Your task to perform on an android device: Is it going to rain tomorrow? Image 0: 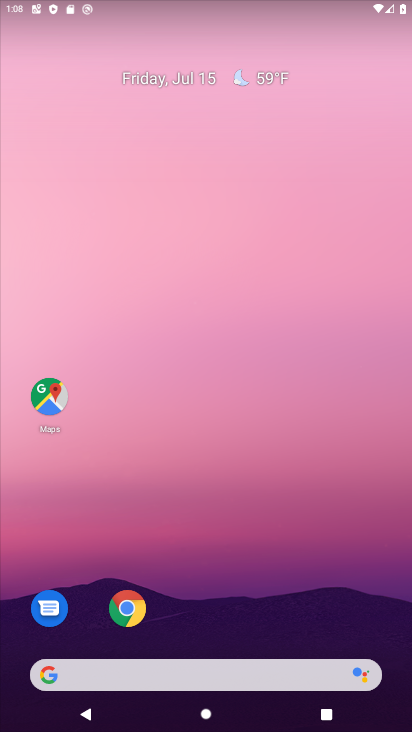
Step 0: drag from (176, 659) to (176, 351)
Your task to perform on an android device: Is it going to rain tomorrow? Image 1: 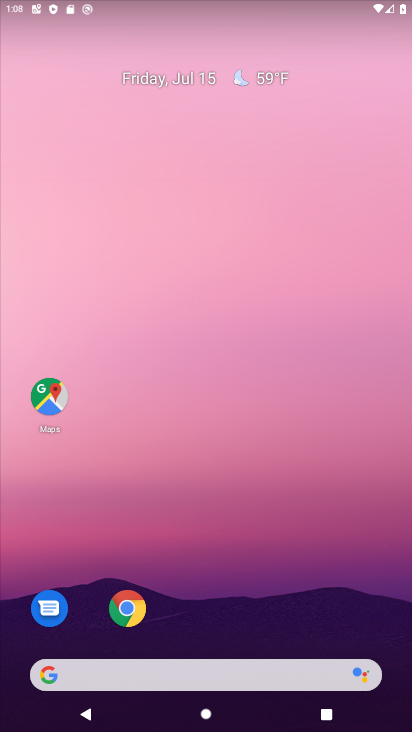
Step 1: drag from (212, 460) to (232, 207)
Your task to perform on an android device: Is it going to rain tomorrow? Image 2: 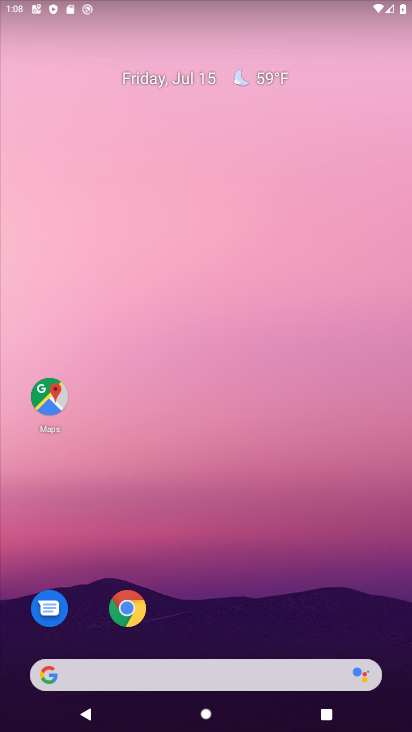
Step 2: drag from (171, 652) to (195, 241)
Your task to perform on an android device: Is it going to rain tomorrow? Image 3: 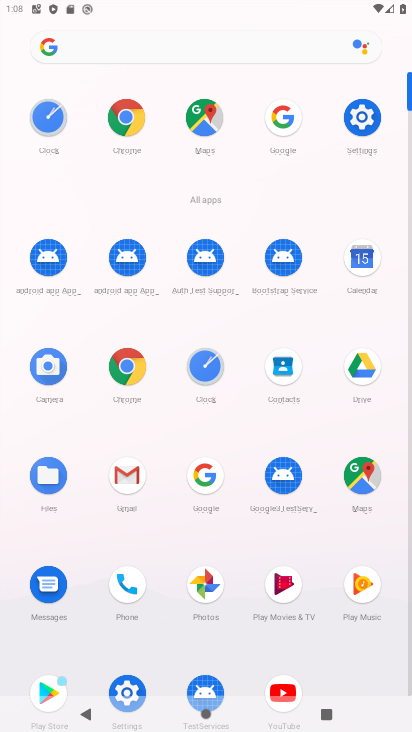
Step 3: click (200, 486)
Your task to perform on an android device: Is it going to rain tomorrow? Image 4: 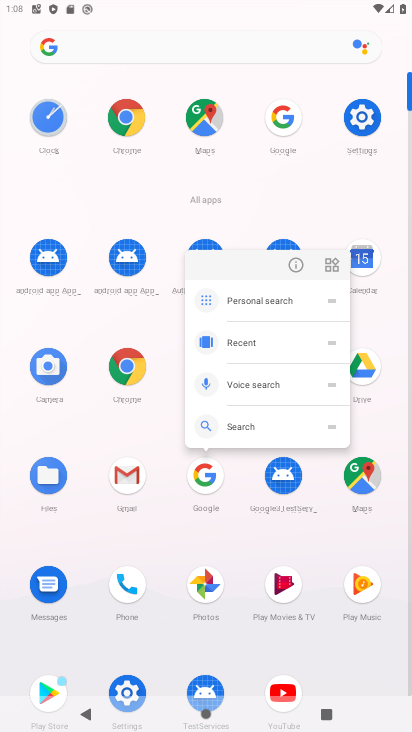
Step 4: click (202, 479)
Your task to perform on an android device: Is it going to rain tomorrow? Image 5: 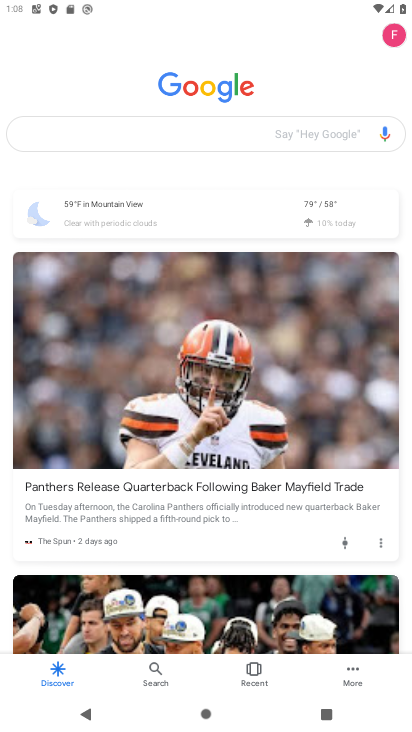
Step 5: click (157, 142)
Your task to perform on an android device: Is it going to rain tomorrow? Image 6: 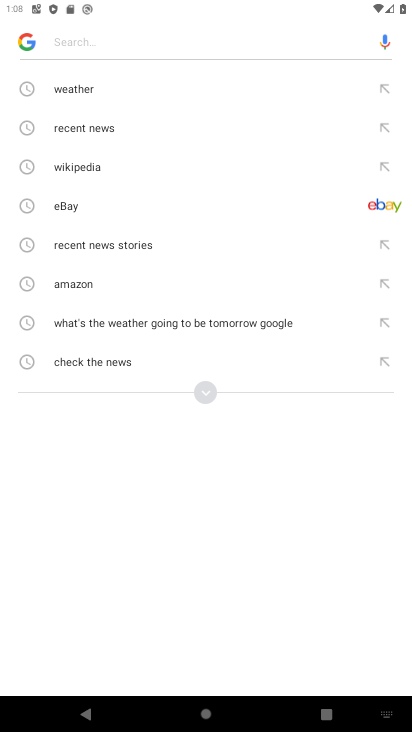
Step 6: click (213, 396)
Your task to perform on an android device: Is it going to rain tomorrow? Image 7: 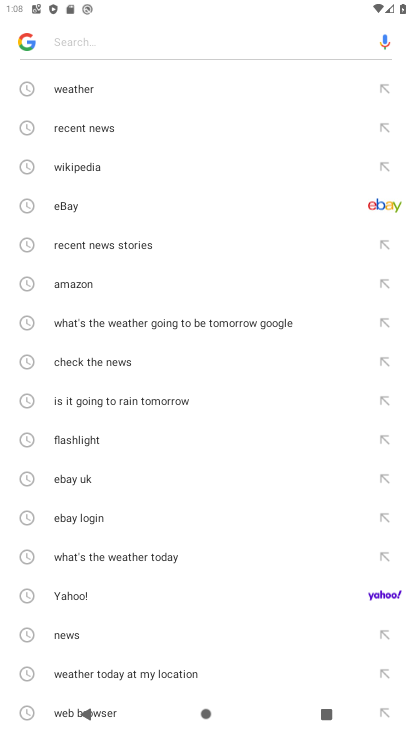
Step 7: drag from (216, 679) to (213, 380)
Your task to perform on an android device: Is it going to rain tomorrow? Image 8: 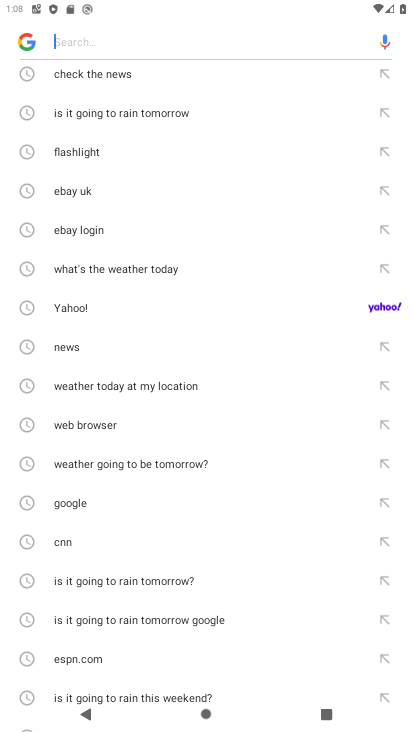
Step 8: click (160, 315)
Your task to perform on an android device: Is it going to rain tomorrow? Image 9: 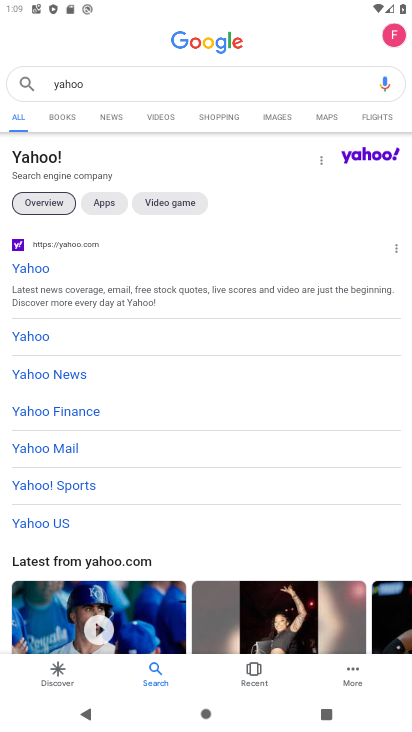
Step 9: task complete